Your task to perform on an android device: change notifications settings Image 0: 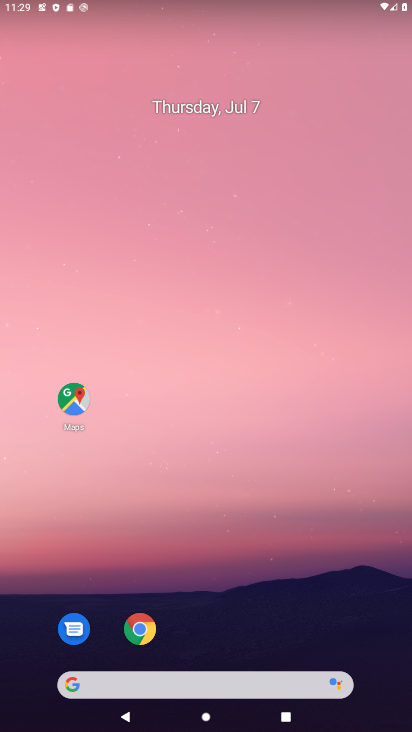
Step 0: drag from (336, 614) to (308, 109)
Your task to perform on an android device: change notifications settings Image 1: 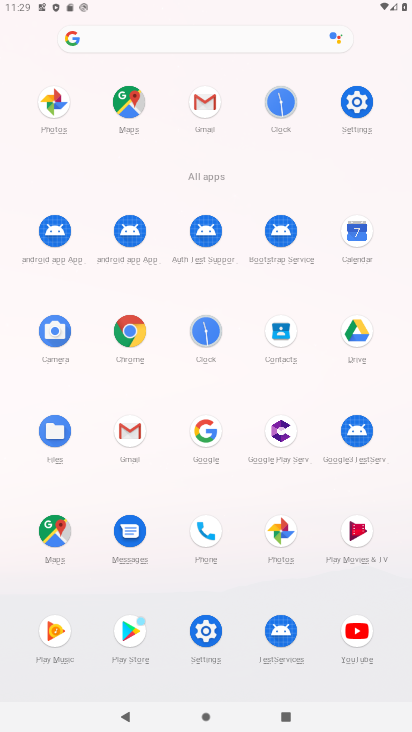
Step 1: click (207, 630)
Your task to perform on an android device: change notifications settings Image 2: 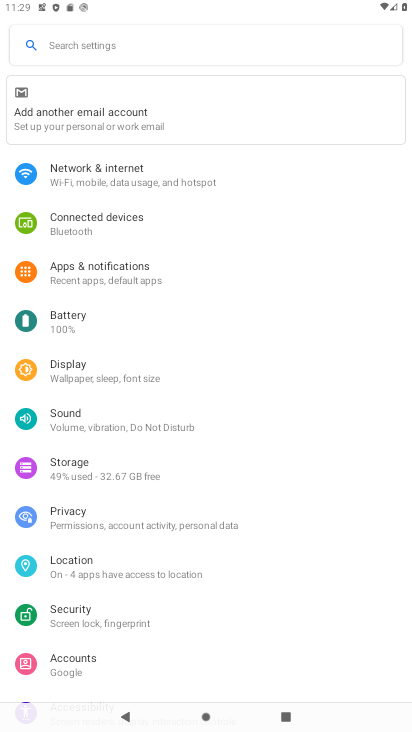
Step 2: click (107, 261)
Your task to perform on an android device: change notifications settings Image 3: 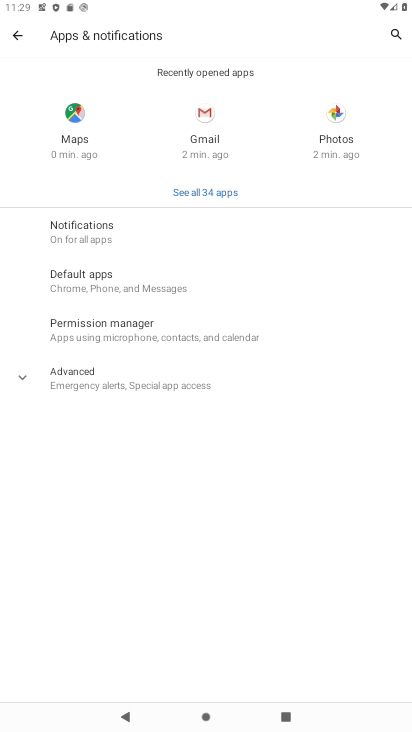
Step 3: click (64, 223)
Your task to perform on an android device: change notifications settings Image 4: 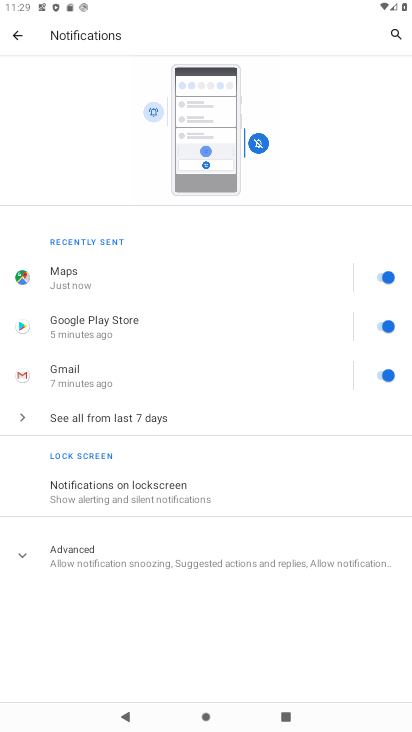
Step 4: click (19, 556)
Your task to perform on an android device: change notifications settings Image 5: 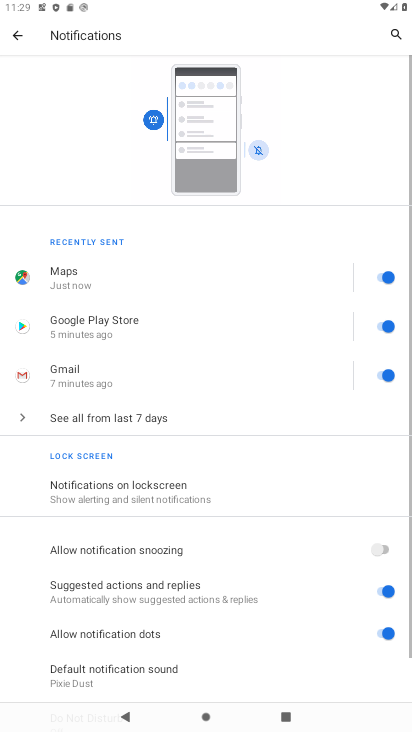
Step 5: drag from (300, 545) to (287, 336)
Your task to perform on an android device: change notifications settings Image 6: 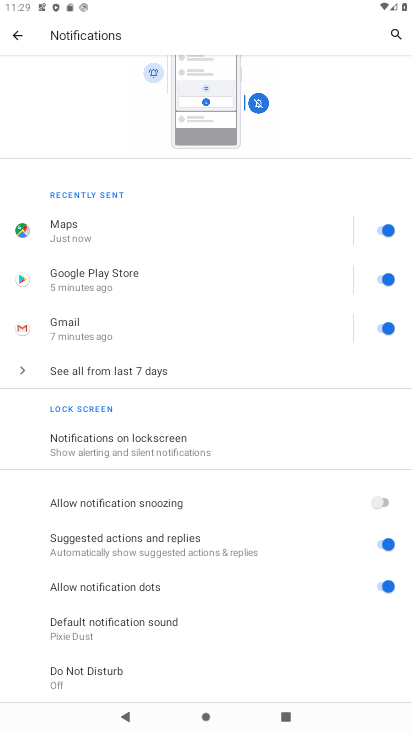
Step 6: click (376, 587)
Your task to perform on an android device: change notifications settings Image 7: 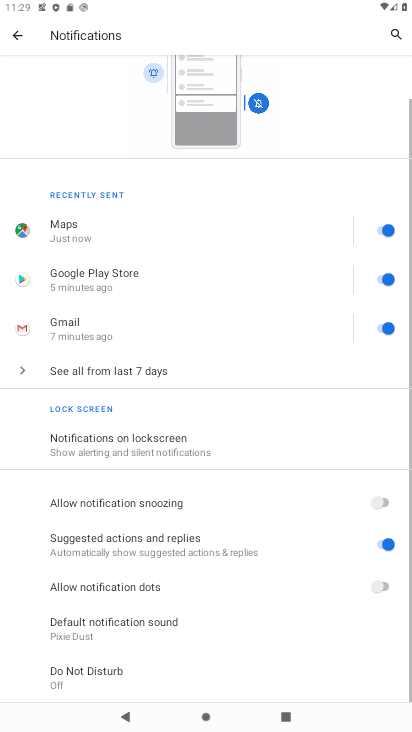
Step 7: click (385, 499)
Your task to perform on an android device: change notifications settings Image 8: 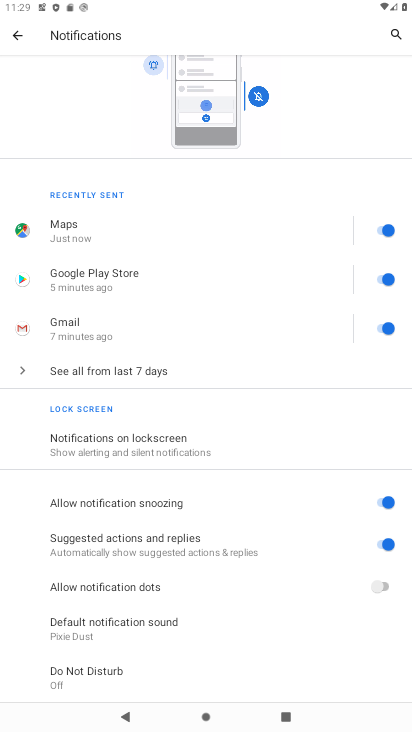
Step 8: task complete